Your task to perform on an android device: Go to CNN.com Image 0: 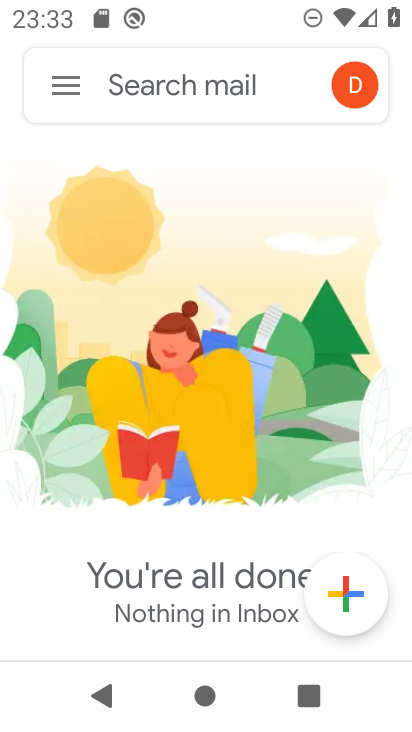
Step 0: press home button
Your task to perform on an android device: Go to CNN.com Image 1: 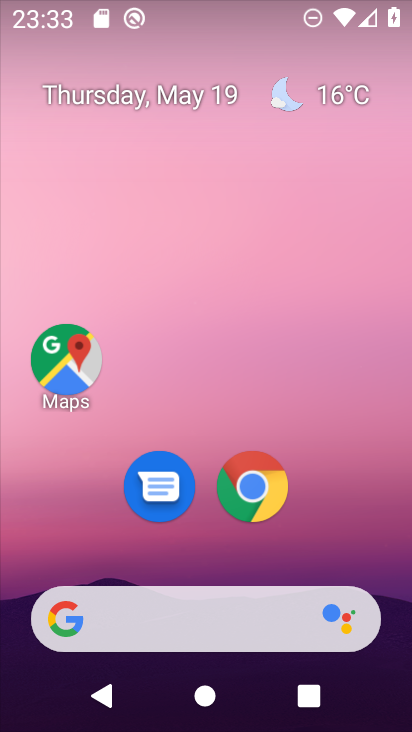
Step 1: click (231, 492)
Your task to perform on an android device: Go to CNN.com Image 2: 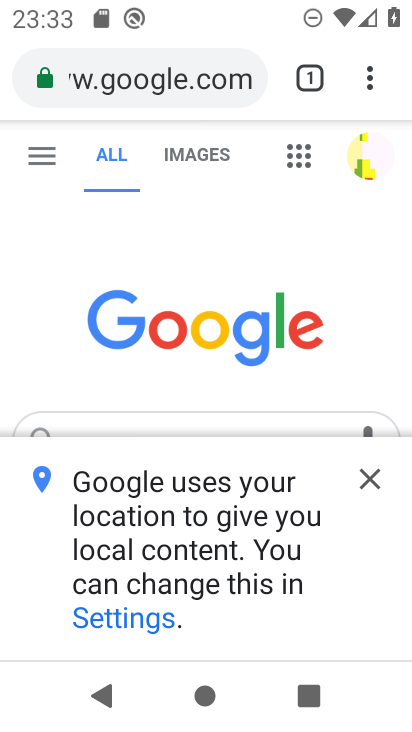
Step 2: click (368, 493)
Your task to perform on an android device: Go to CNN.com Image 3: 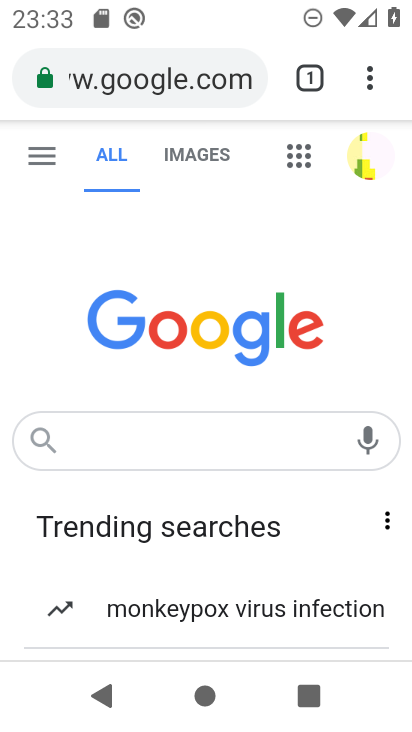
Step 3: click (232, 91)
Your task to perform on an android device: Go to CNN.com Image 4: 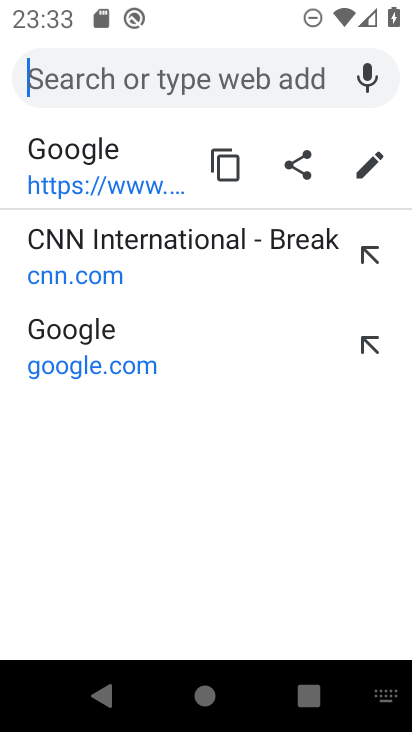
Step 4: click (196, 250)
Your task to perform on an android device: Go to CNN.com Image 5: 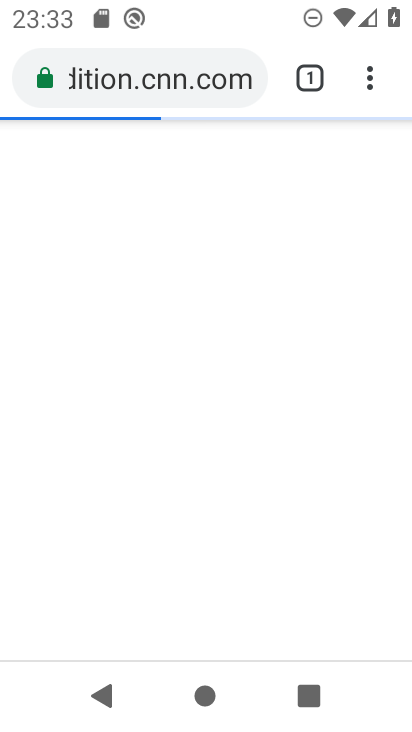
Step 5: task complete